Your task to perform on an android device: Go to eBay Image 0: 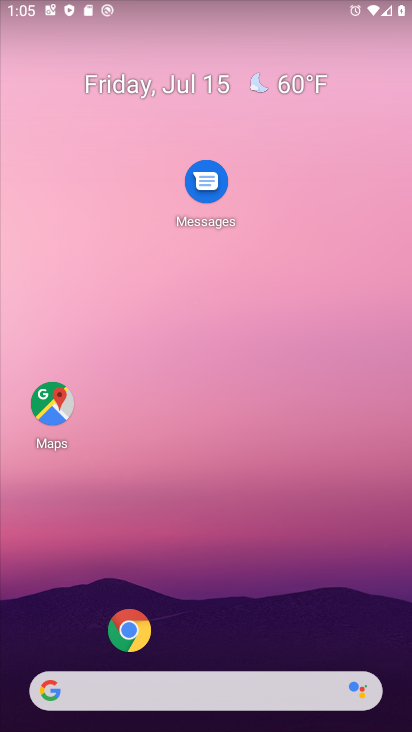
Step 0: click (107, 697)
Your task to perform on an android device: Go to eBay Image 1: 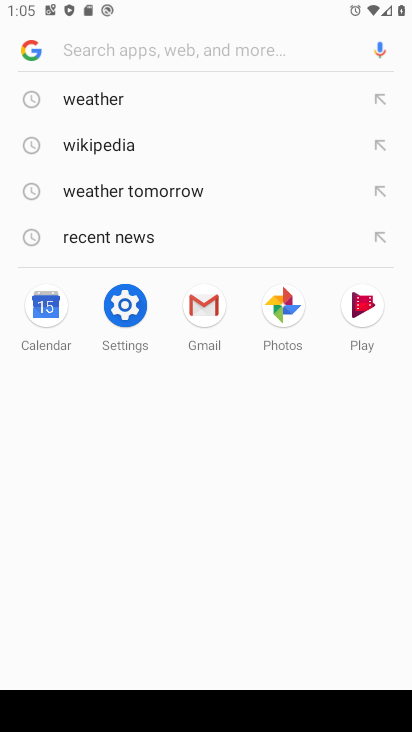
Step 1: type "eBay"
Your task to perform on an android device: Go to eBay Image 2: 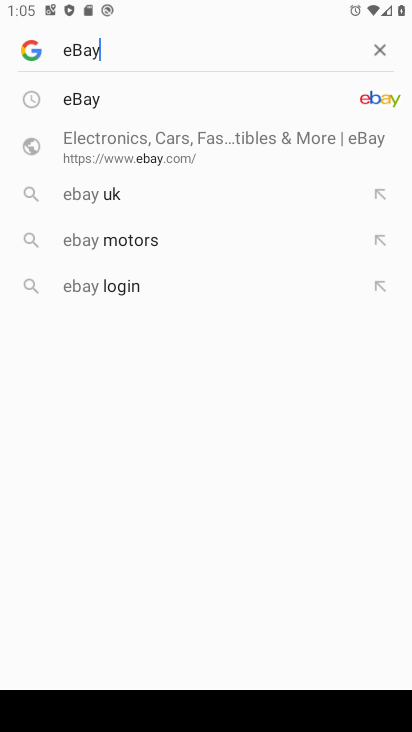
Step 2: type ""
Your task to perform on an android device: Go to eBay Image 3: 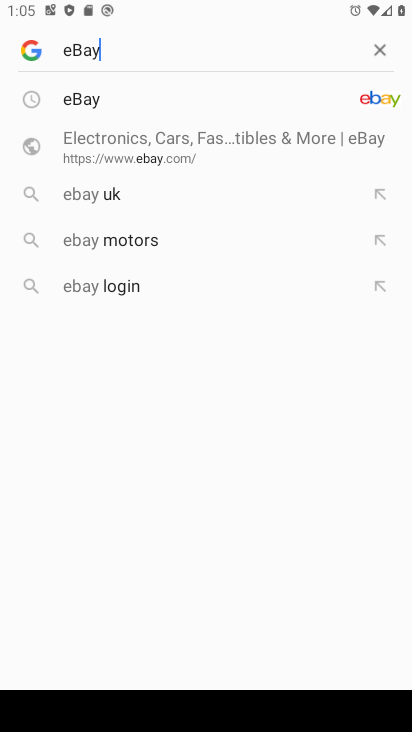
Step 3: click (85, 108)
Your task to perform on an android device: Go to eBay Image 4: 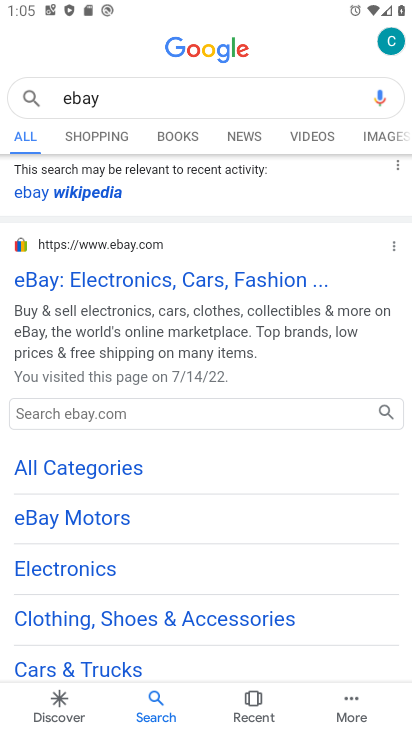
Step 4: task complete